Your task to perform on an android device: check android version Image 0: 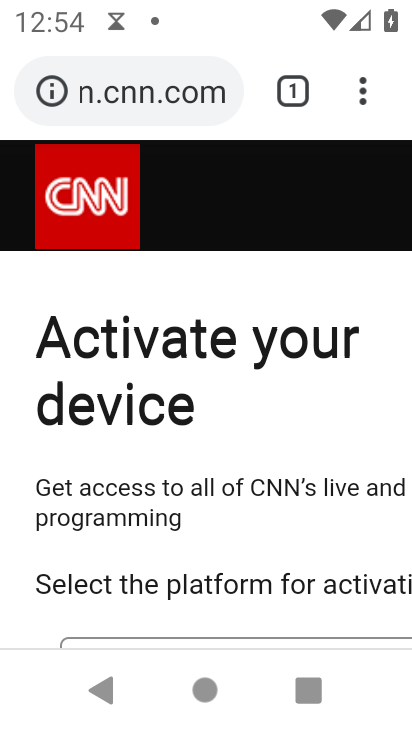
Step 0: press back button
Your task to perform on an android device: check android version Image 1: 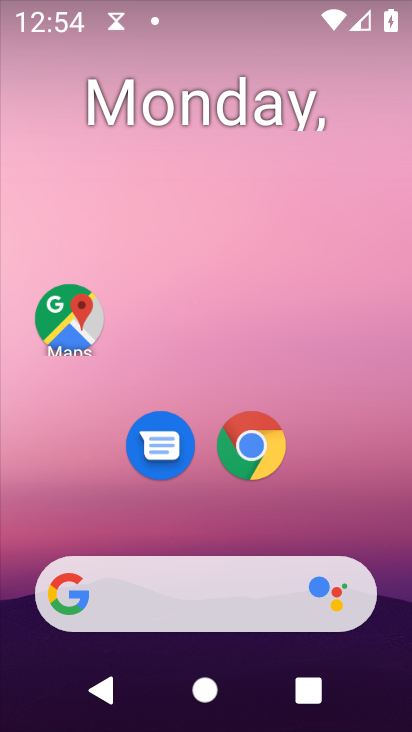
Step 1: drag from (377, 572) to (229, 155)
Your task to perform on an android device: check android version Image 2: 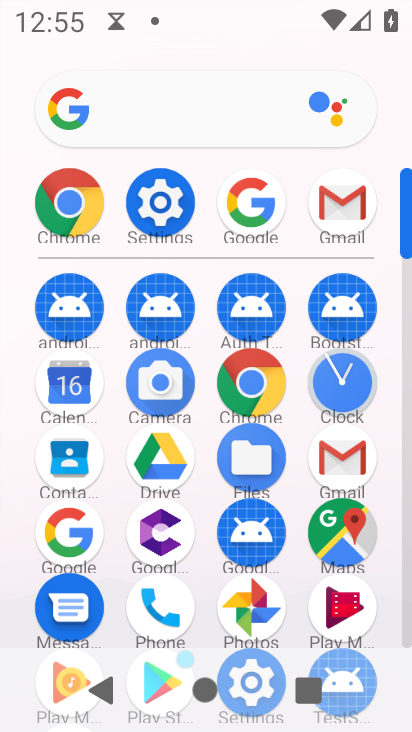
Step 2: click (160, 205)
Your task to perform on an android device: check android version Image 3: 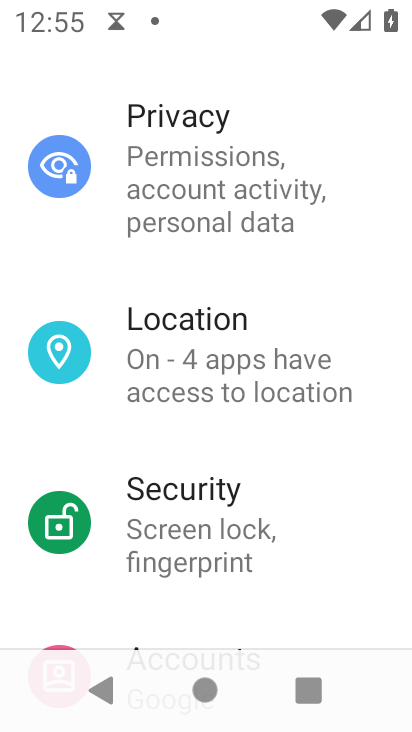
Step 3: drag from (170, 465) to (127, 204)
Your task to perform on an android device: check android version Image 4: 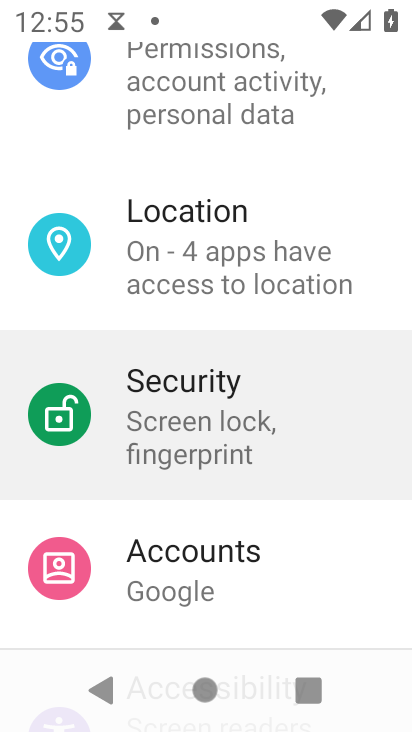
Step 4: drag from (176, 410) to (147, 157)
Your task to perform on an android device: check android version Image 5: 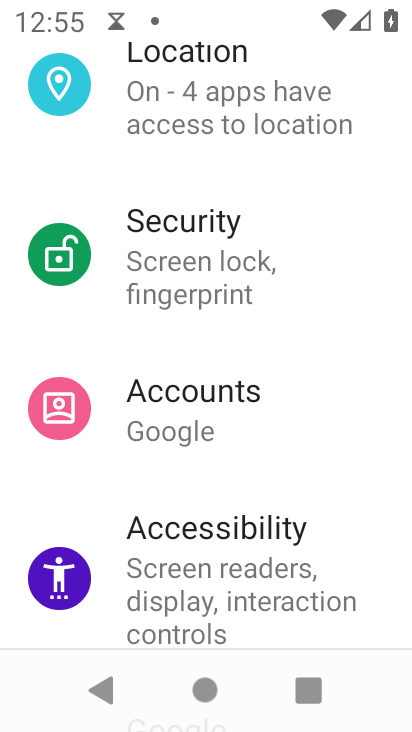
Step 5: drag from (162, 505) to (173, 254)
Your task to perform on an android device: check android version Image 6: 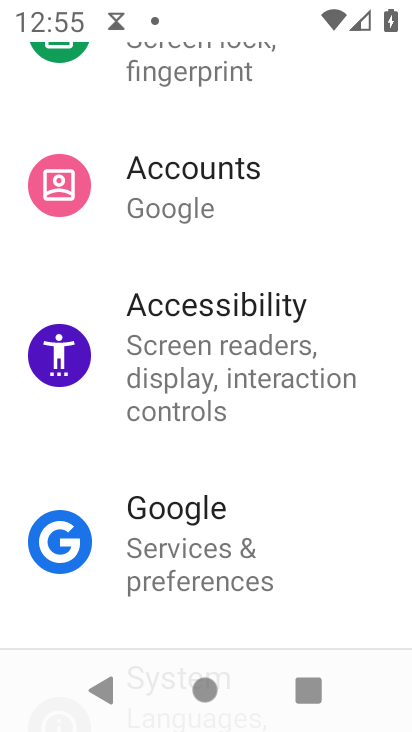
Step 6: drag from (208, 420) to (184, 127)
Your task to perform on an android device: check android version Image 7: 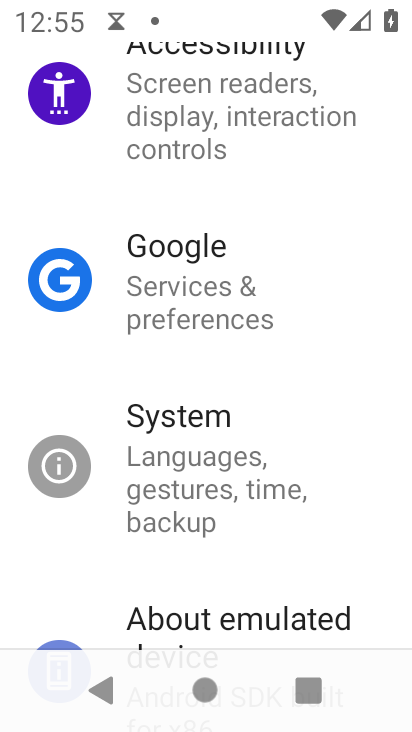
Step 7: drag from (237, 384) to (251, 159)
Your task to perform on an android device: check android version Image 8: 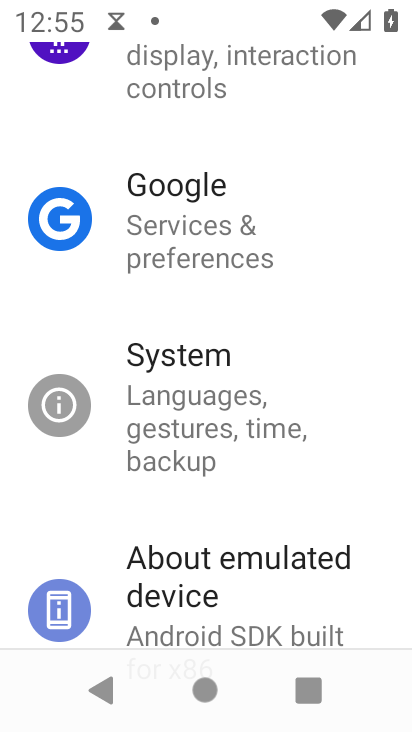
Step 8: drag from (213, 402) to (140, 138)
Your task to perform on an android device: check android version Image 9: 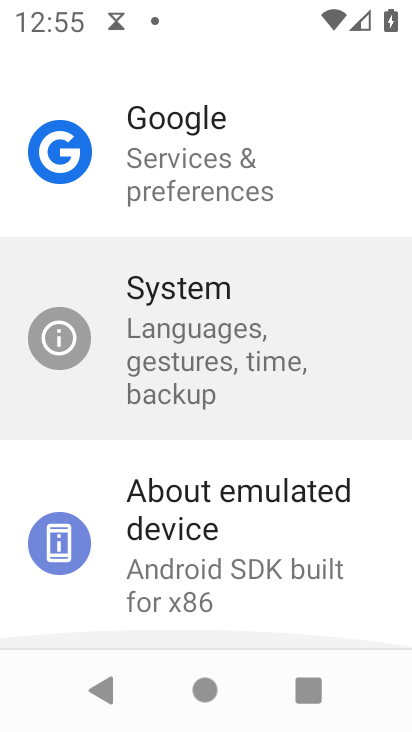
Step 9: drag from (200, 341) to (203, 64)
Your task to perform on an android device: check android version Image 10: 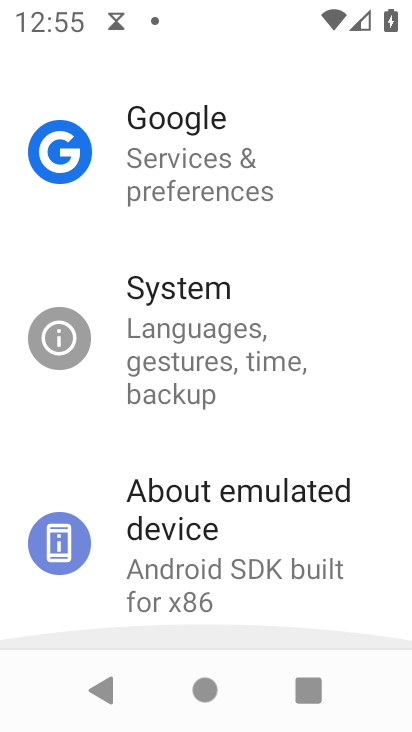
Step 10: drag from (218, 335) to (228, 118)
Your task to perform on an android device: check android version Image 11: 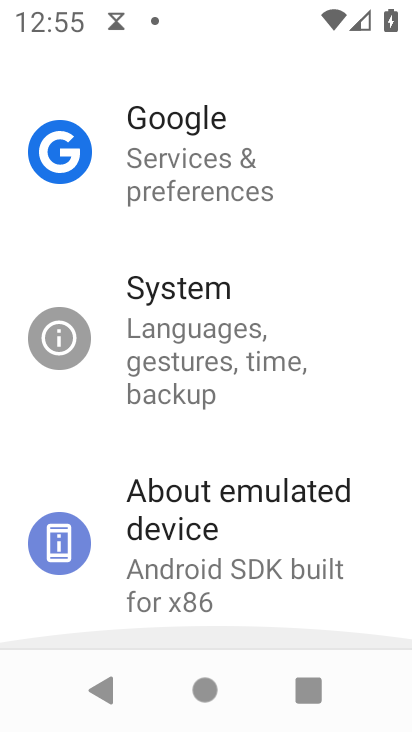
Step 11: drag from (229, 395) to (294, 195)
Your task to perform on an android device: check android version Image 12: 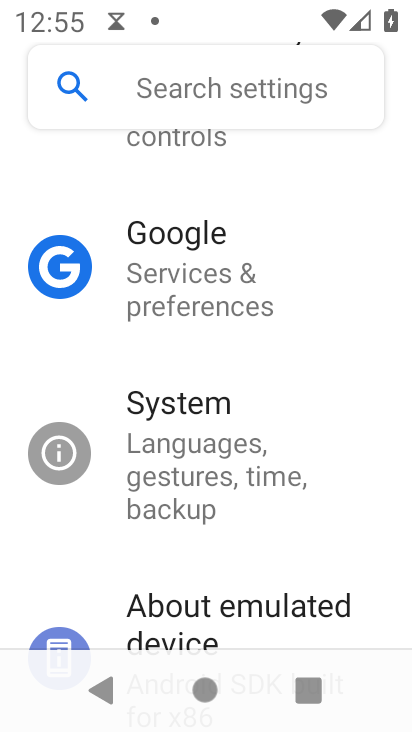
Step 12: drag from (223, 414) to (278, 145)
Your task to perform on an android device: check android version Image 13: 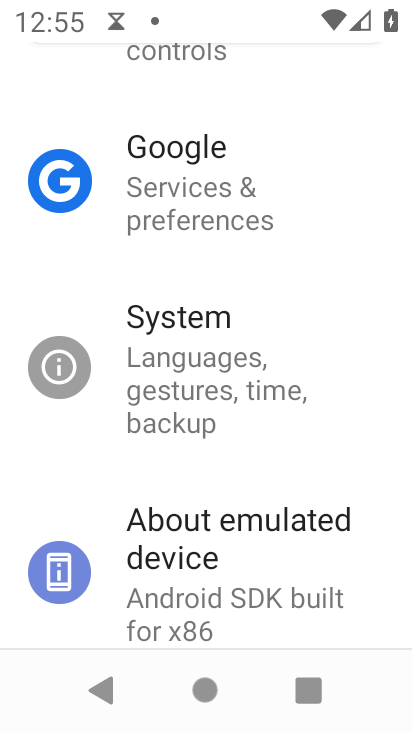
Step 13: click (191, 570)
Your task to perform on an android device: check android version Image 14: 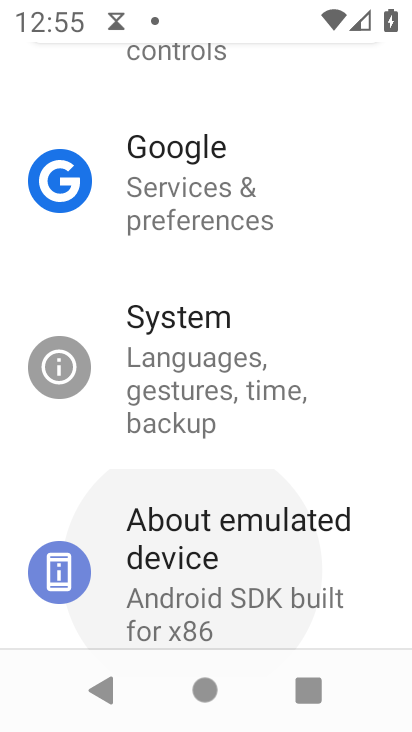
Step 14: click (190, 572)
Your task to perform on an android device: check android version Image 15: 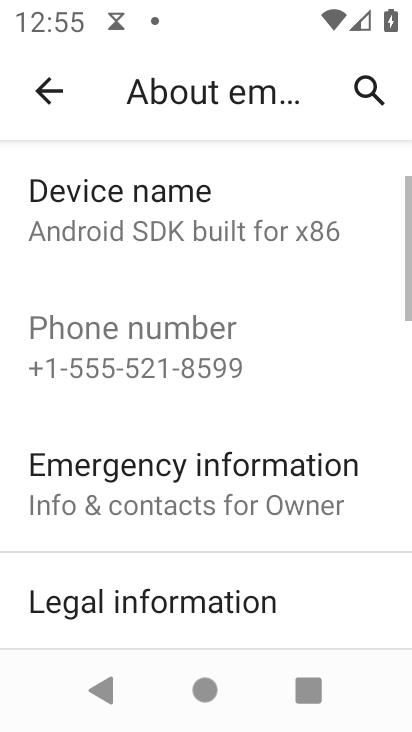
Step 15: click (188, 573)
Your task to perform on an android device: check android version Image 16: 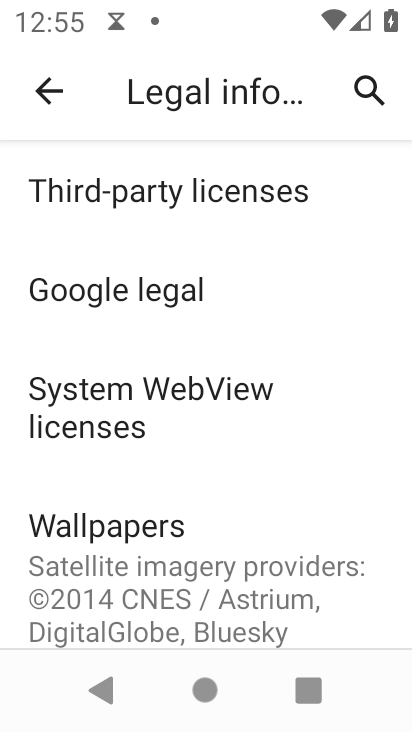
Step 16: click (61, 91)
Your task to perform on an android device: check android version Image 17: 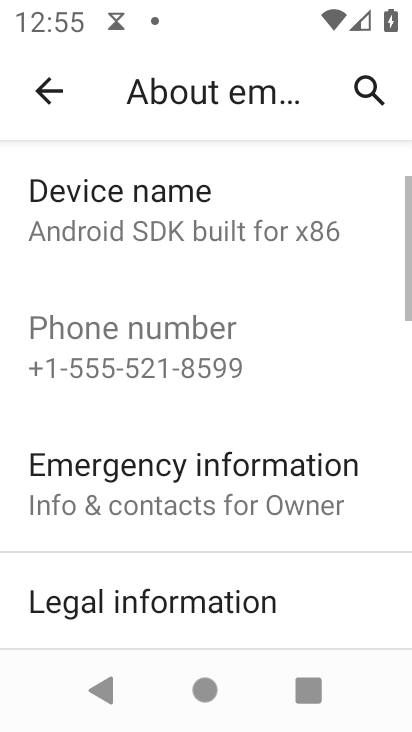
Step 17: drag from (160, 460) to (177, 154)
Your task to perform on an android device: check android version Image 18: 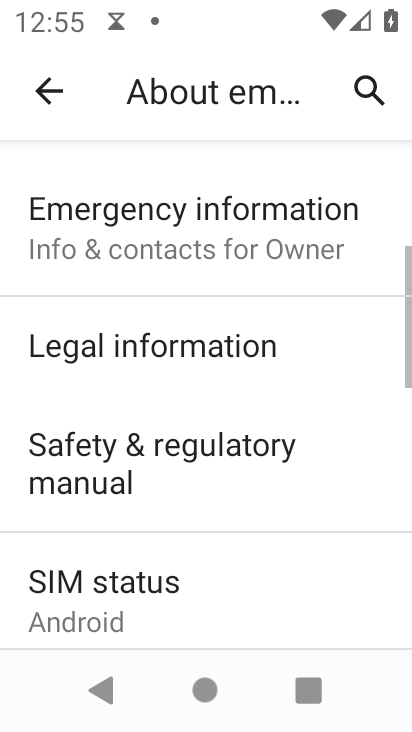
Step 18: drag from (174, 502) to (199, 215)
Your task to perform on an android device: check android version Image 19: 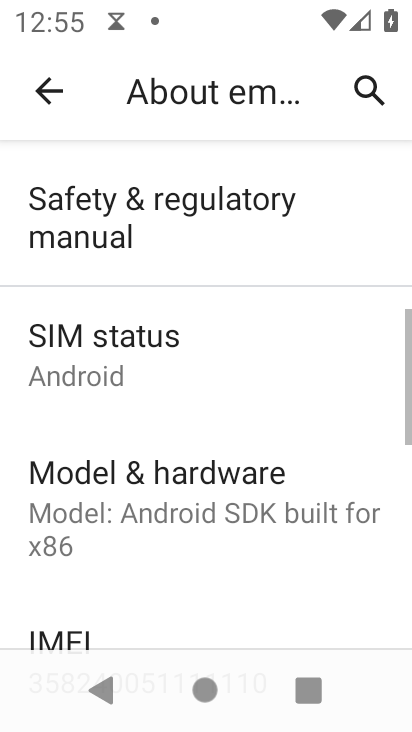
Step 19: drag from (220, 489) to (270, 224)
Your task to perform on an android device: check android version Image 20: 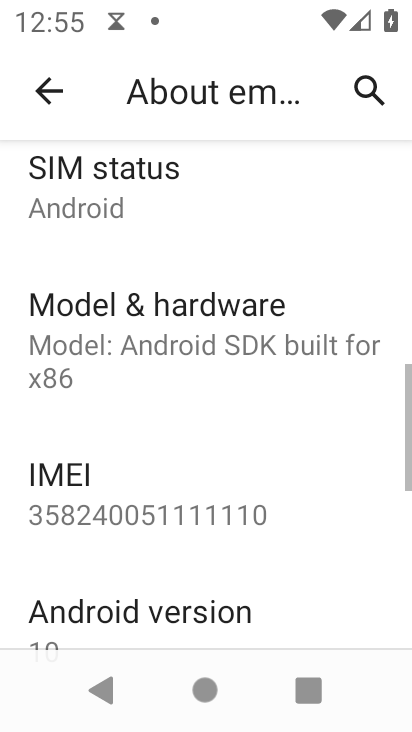
Step 20: drag from (255, 519) to (259, 295)
Your task to perform on an android device: check android version Image 21: 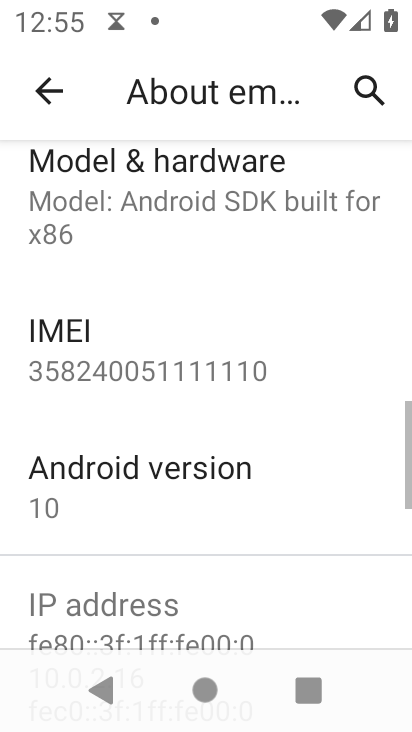
Step 21: drag from (152, 465) to (178, 240)
Your task to perform on an android device: check android version Image 22: 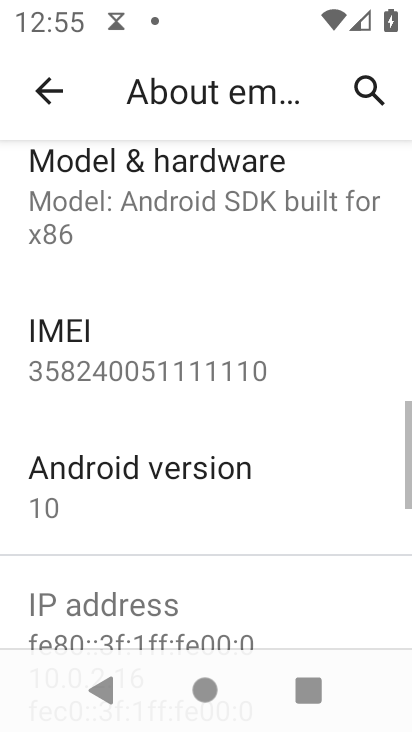
Step 22: click (127, 165)
Your task to perform on an android device: check android version Image 23: 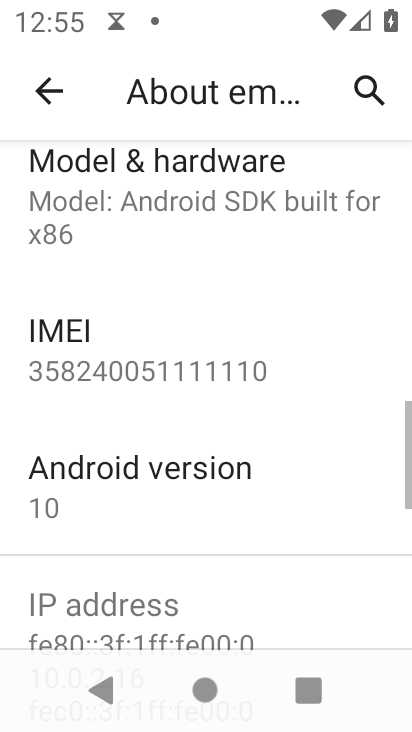
Step 23: drag from (205, 453) to (224, 187)
Your task to perform on an android device: check android version Image 24: 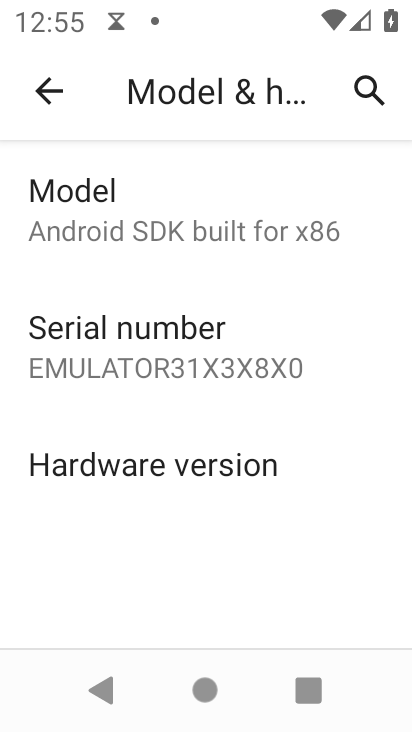
Step 24: drag from (212, 378) to (260, 147)
Your task to perform on an android device: check android version Image 25: 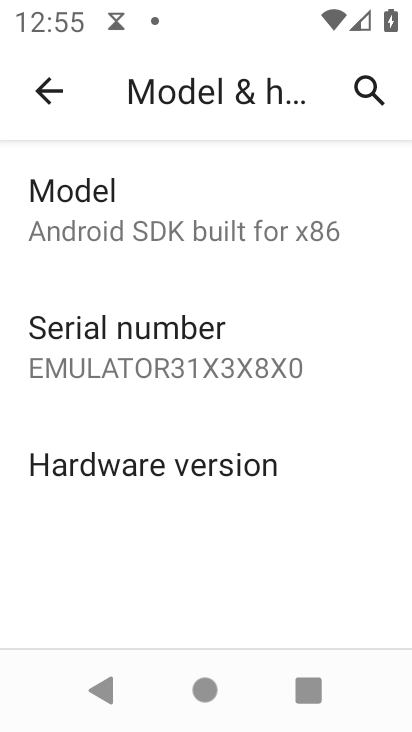
Step 25: click (45, 66)
Your task to perform on an android device: check android version Image 26: 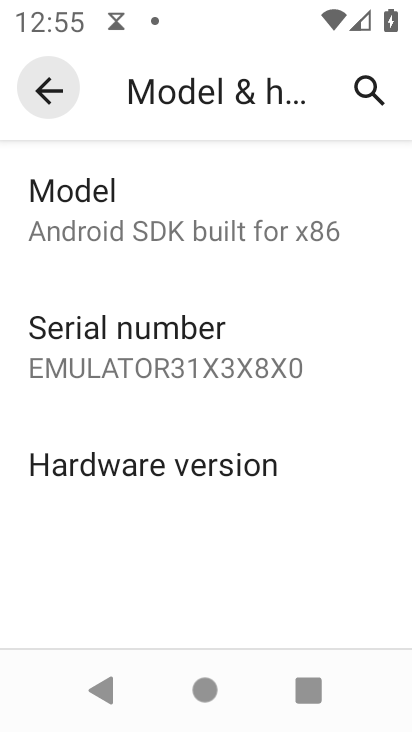
Step 26: click (41, 73)
Your task to perform on an android device: check android version Image 27: 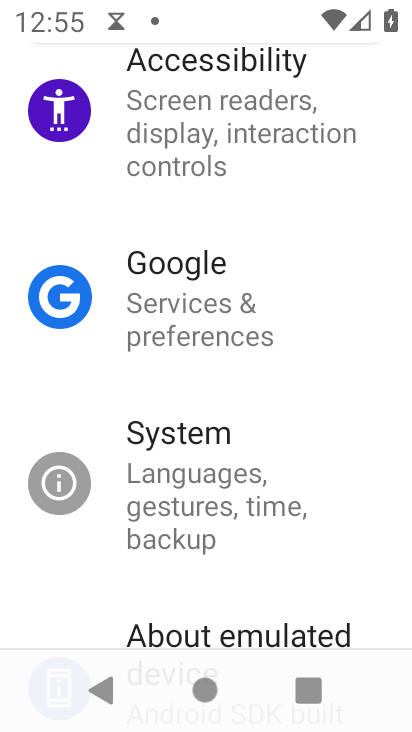
Step 27: task complete